Your task to perform on an android device: Go to CNN.com Image 0: 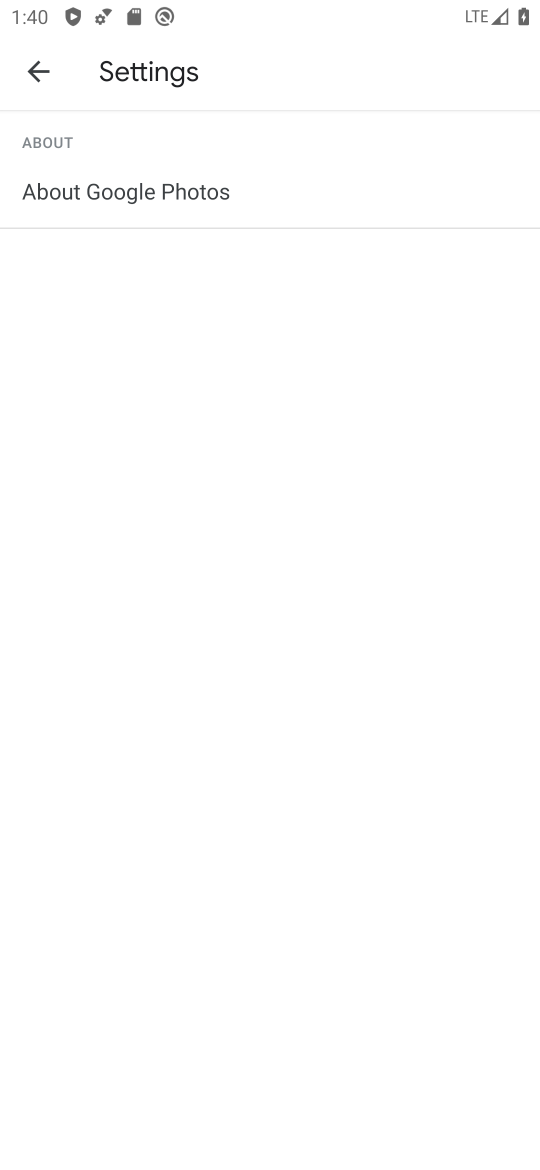
Step 0: press home button
Your task to perform on an android device: Go to CNN.com Image 1: 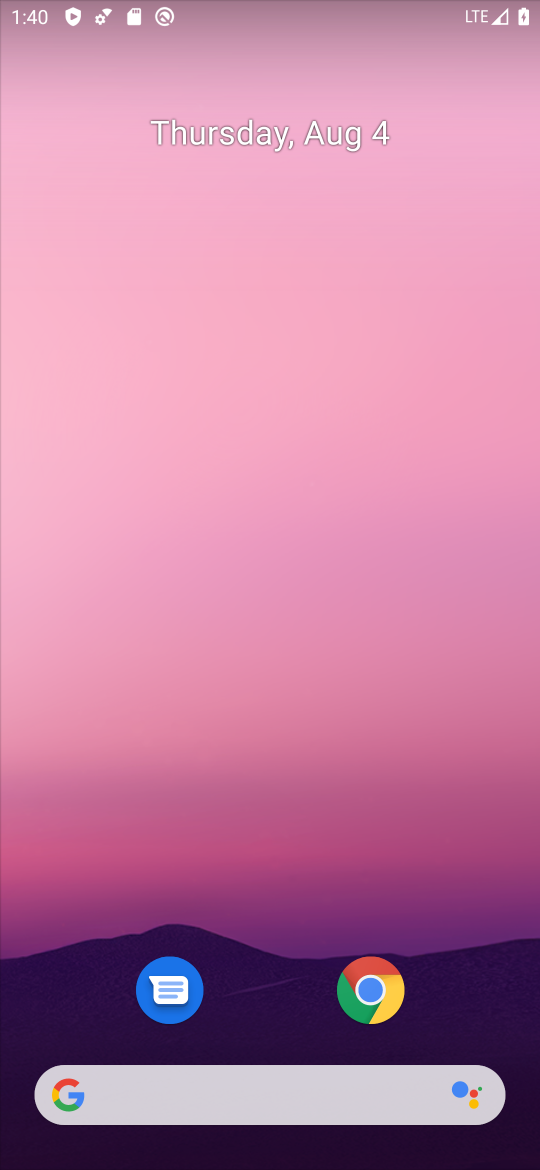
Step 1: drag from (294, 1050) to (234, 398)
Your task to perform on an android device: Go to CNN.com Image 2: 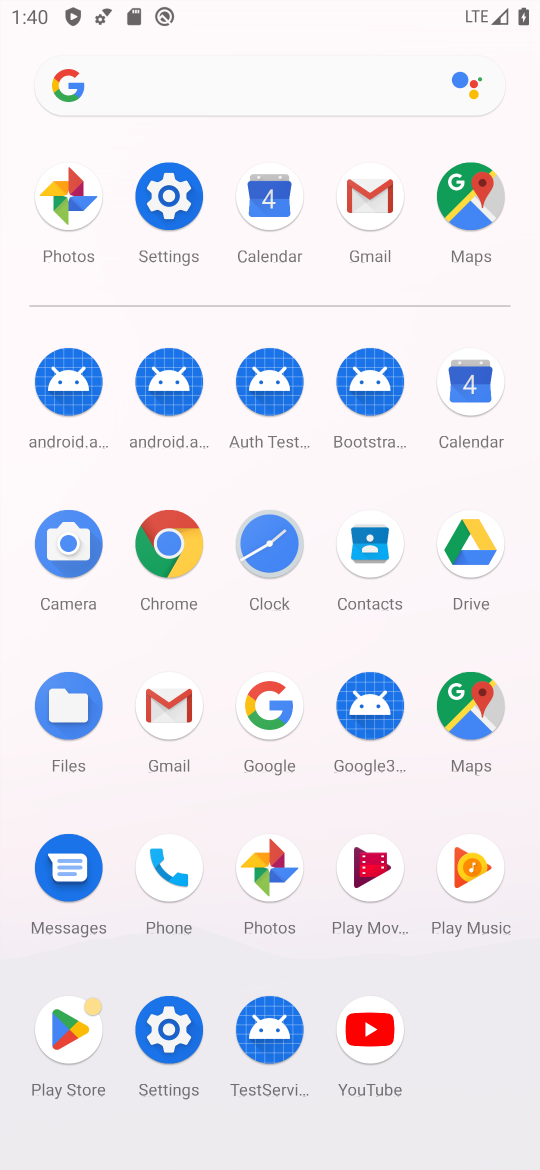
Step 2: click (167, 605)
Your task to perform on an android device: Go to CNN.com Image 3: 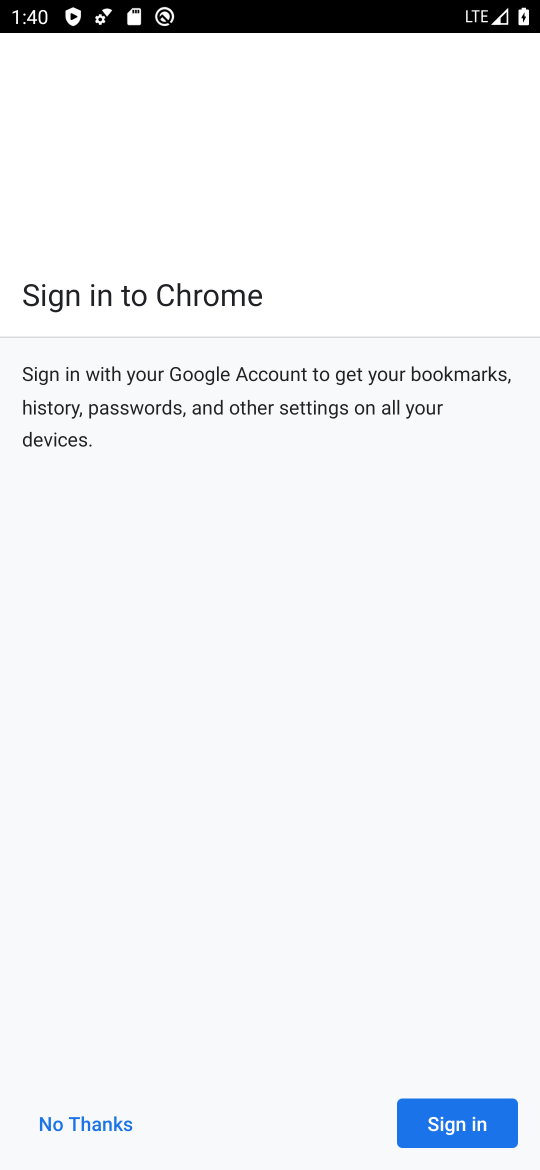
Step 3: task complete